Your task to perform on an android device: Open notification settings Image 0: 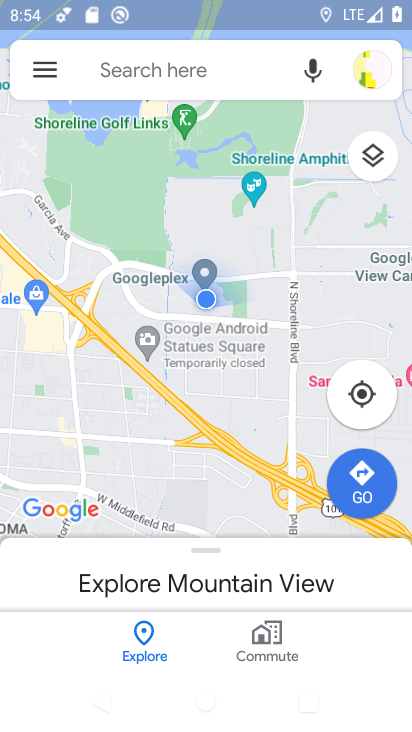
Step 0: press home button
Your task to perform on an android device: Open notification settings Image 1: 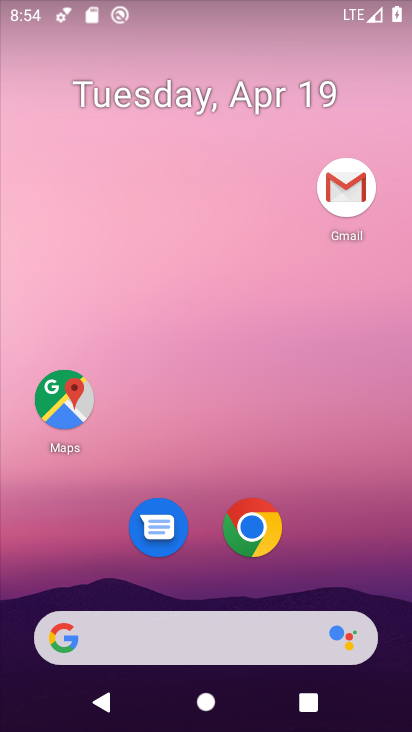
Step 1: drag from (380, 550) to (382, 62)
Your task to perform on an android device: Open notification settings Image 2: 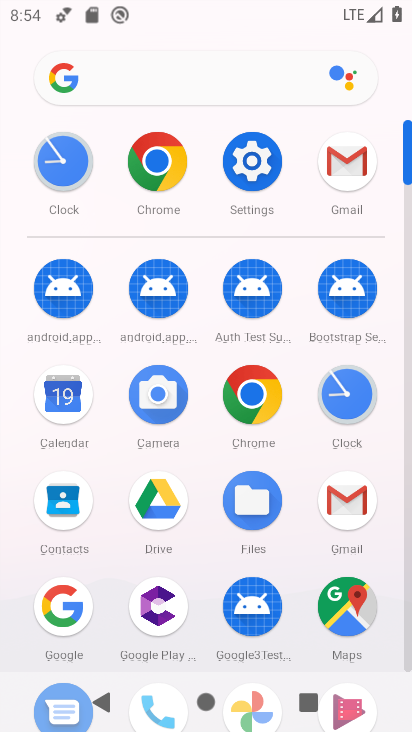
Step 2: click (264, 188)
Your task to perform on an android device: Open notification settings Image 3: 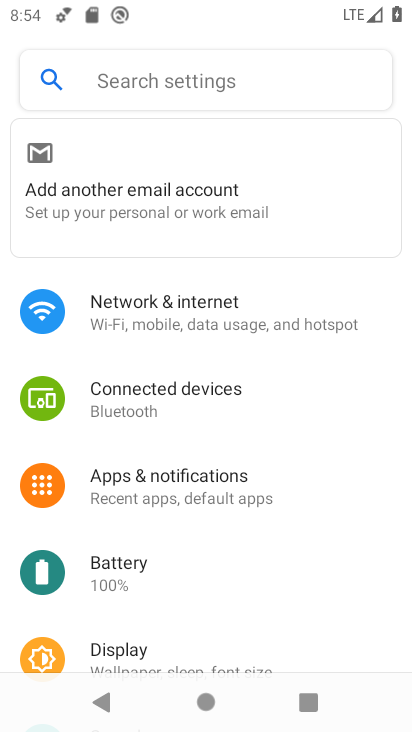
Step 3: click (190, 484)
Your task to perform on an android device: Open notification settings Image 4: 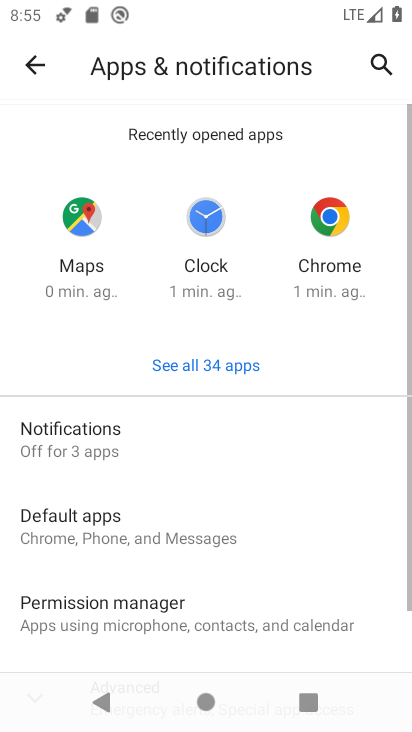
Step 4: click (91, 431)
Your task to perform on an android device: Open notification settings Image 5: 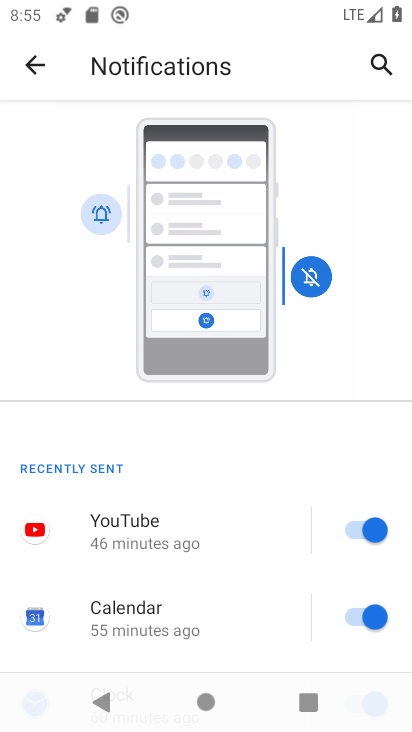
Step 5: drag from (265, 625) to (350, 197)
Your task to perform on an android device: Open notification settings Image 6: 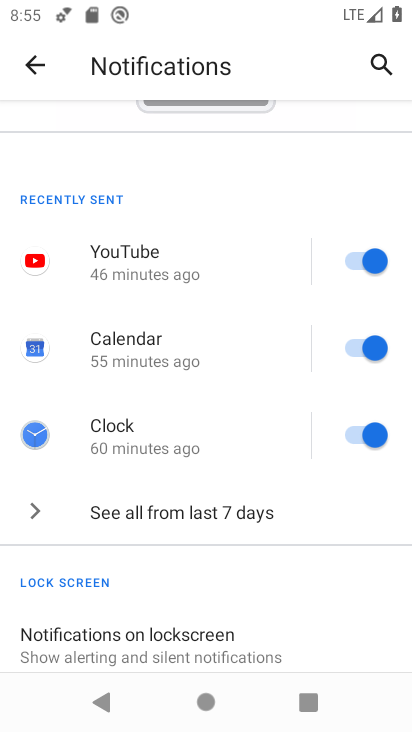
Step 6: drag from (273, 566) to (271, 246)
Your task to perform on an android device: Open notification settings Image 7: 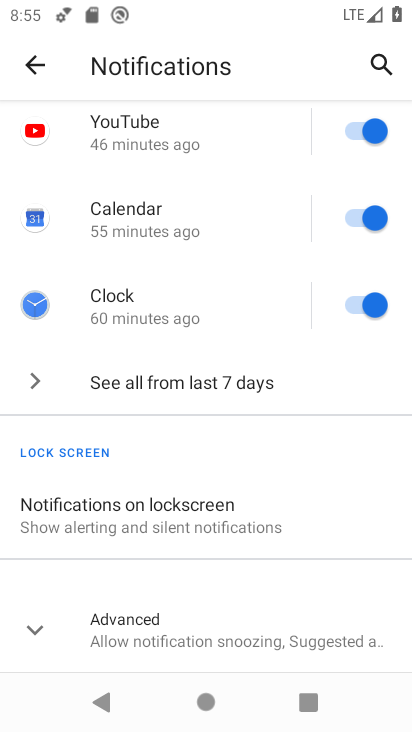
Step 7: click (245, 626)
Your task to perform on an android device: Open notification settings Image 8: 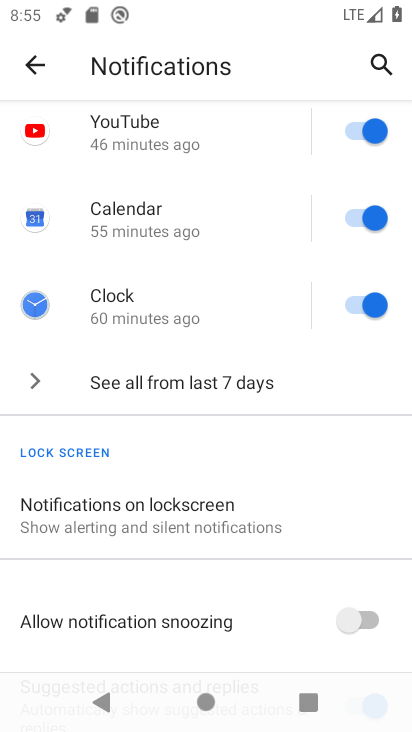
Step 8: task complete